Your task to perform on an android device: find snoozed emails in the gmail app Image 0: 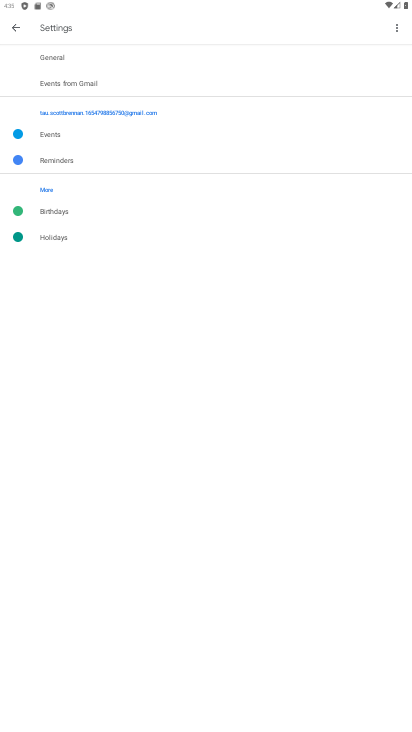
Step 0: press home button
Your task to perform on an android device: find snoozed emails in the gmail app Image 1: 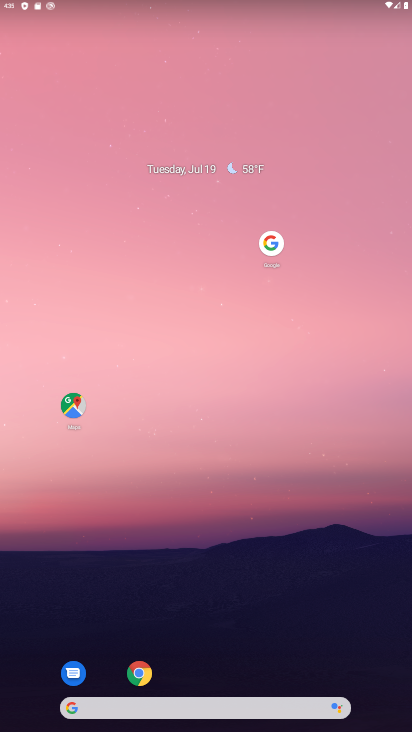
Step 1: drag from (223, 612) to (164, 125)
Your task to perform on an android device: find snoozed emails in the gmail app Image 2: 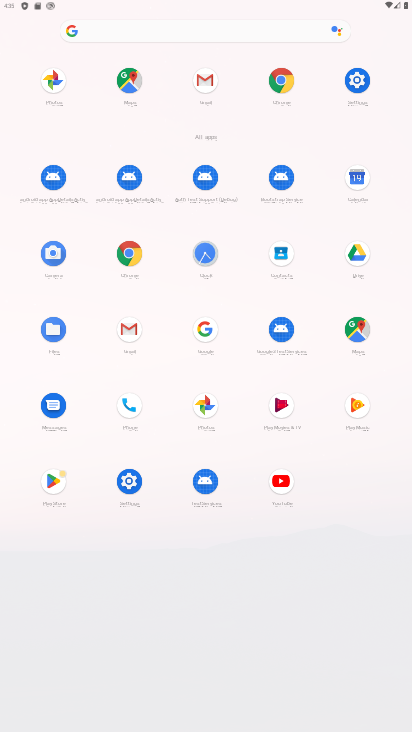
Step 2: click (208, 81)
Your task to perform on an android device: find snoozed emails in the gmail app Image 3: 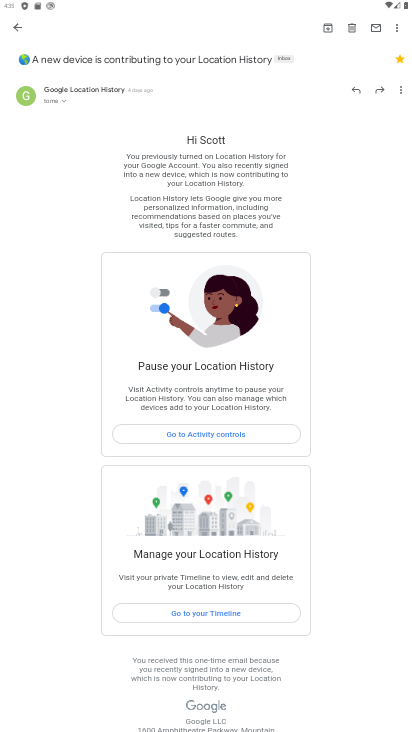
Step 3: click (13, 25)
Your task to perform on an android device: find snoozed emails in the gmail app Image 4: 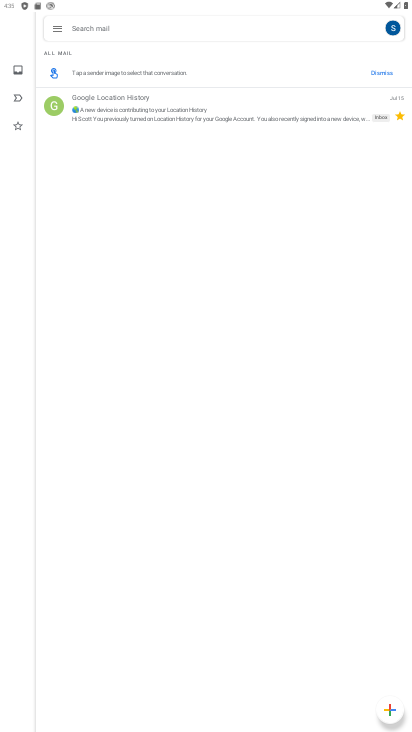
Step 4: click (55, 29)
Your task to perform on an android device: find snoozed emails in the gmail app Image 5: 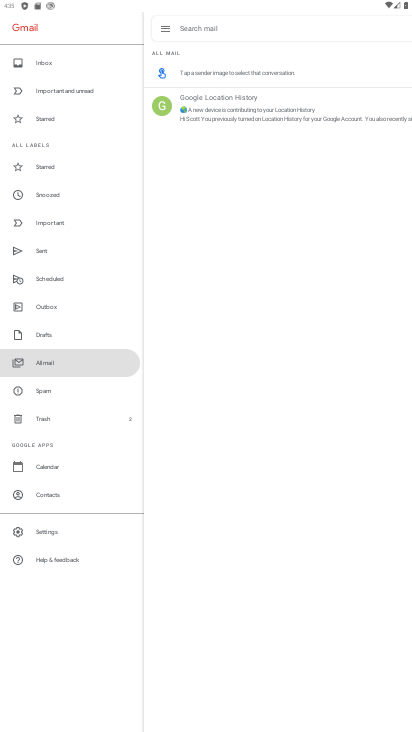
Step 5: click (45, 191)
Your task to perform on an android device: find snoozed emails in the gmail app Image 6: 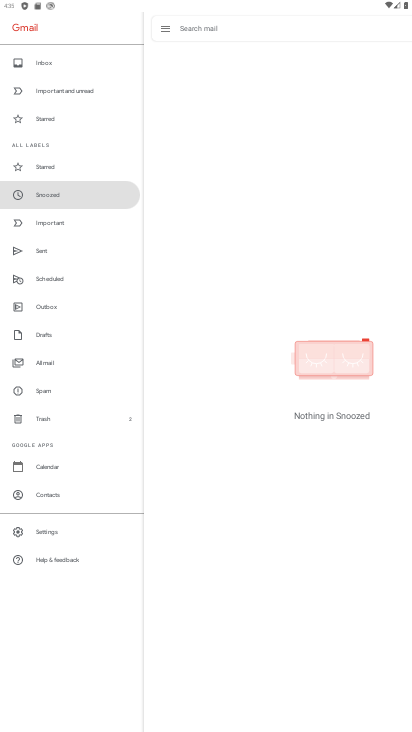
Step 6: task complete